Your task to perform on an android device: Open ESPN.com Image 0: 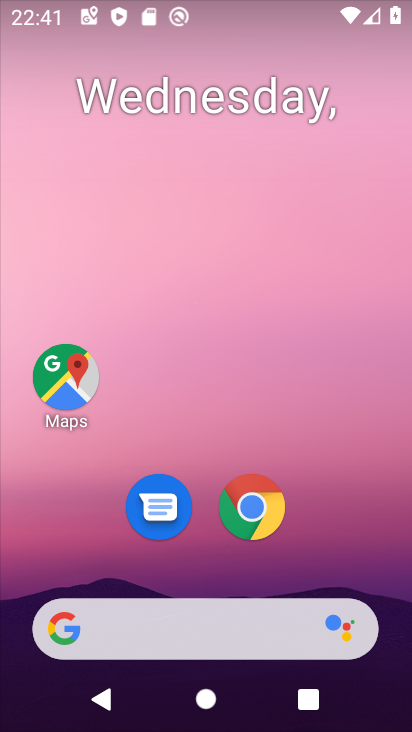
Step 0: drag from (345, 576) to (340, 180)
Your task to perform on an android device: Open ESPN.com Image 1: 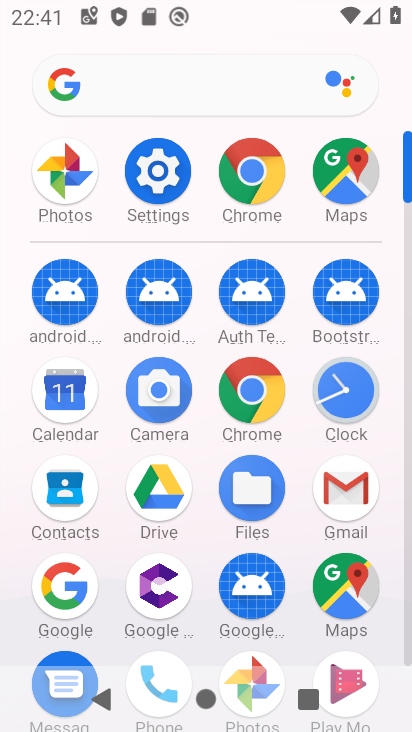
Step 1: click (233, 173)
Your task to perform on an android device: Open ESPN.com Image 2: 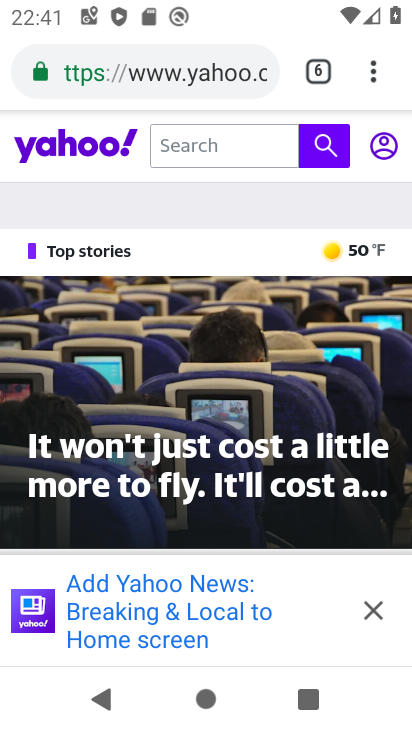
Step 2: click (351, 67)
Your task to perform on an android device: Open ESPN.com Image 3: 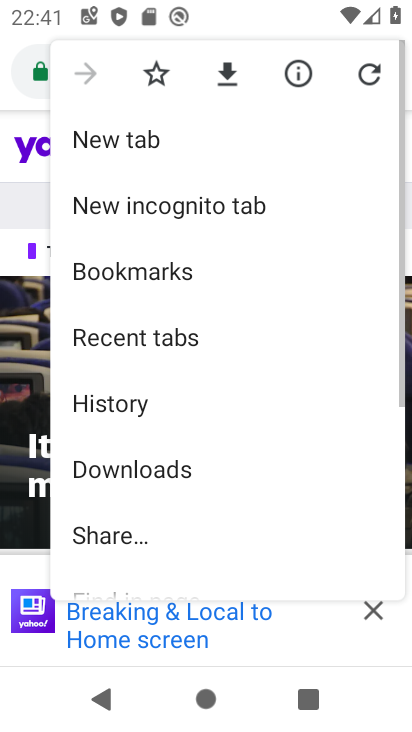
Step 3: click (128, 118)
Your task to perform on an android device: Open ESPN.com Image 4: 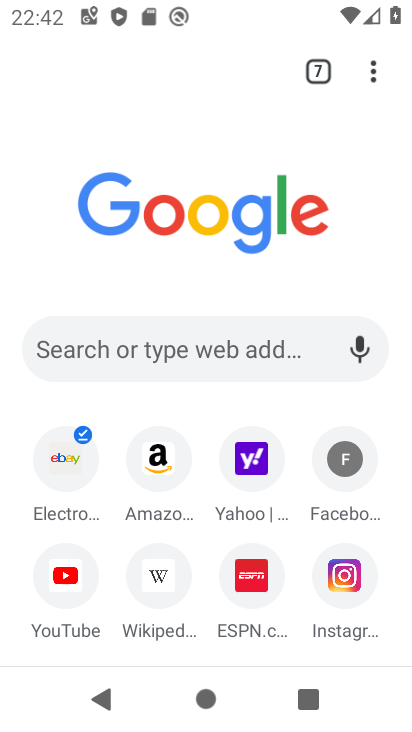
Step 4: click (254, 572)
Your task to perform on an android device: Open ESPN.com Image 5: 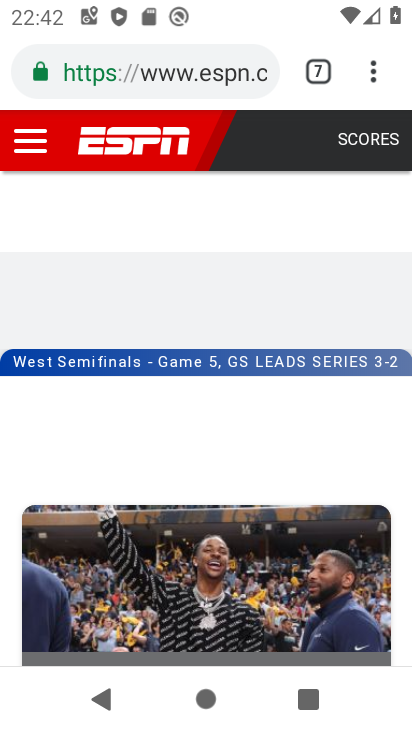
Step 5: task complete